Your task to perform on an android device: change text size in settings app Image 0: 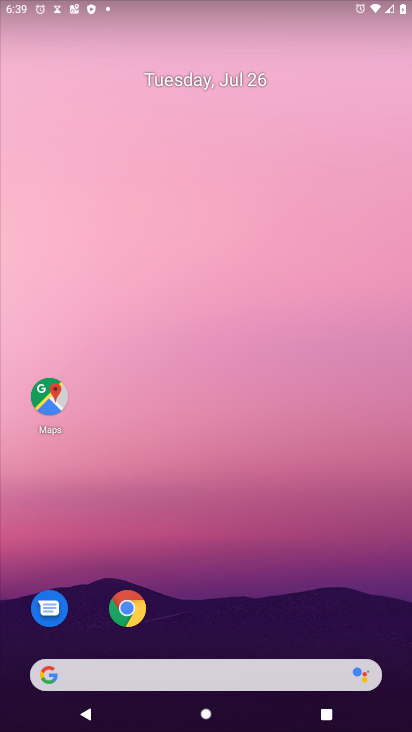
Step 0: press home button
Your task to perform on an android device: change text size in settings app Image 1: 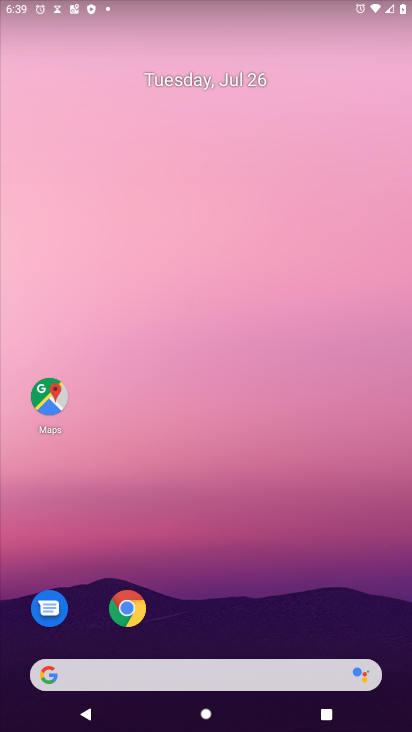
Step 1: drag from (274, 625) to (278, 171)
Your task to perform on an android device: change text size in settings app Image 2: 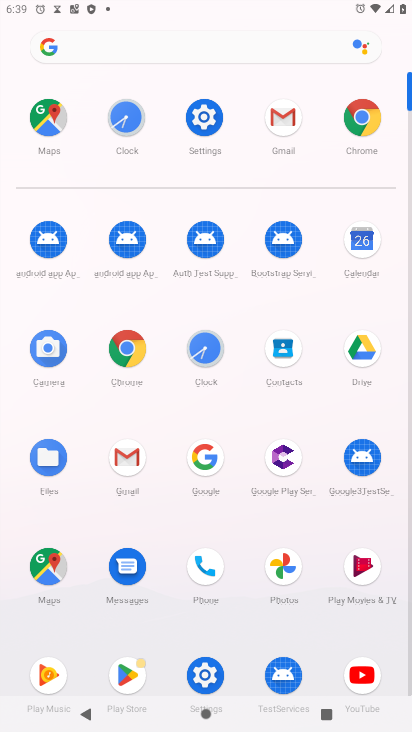
Step 2: click (211, 122)
Your task to perform on an android device: change text size in settings app Image 3: 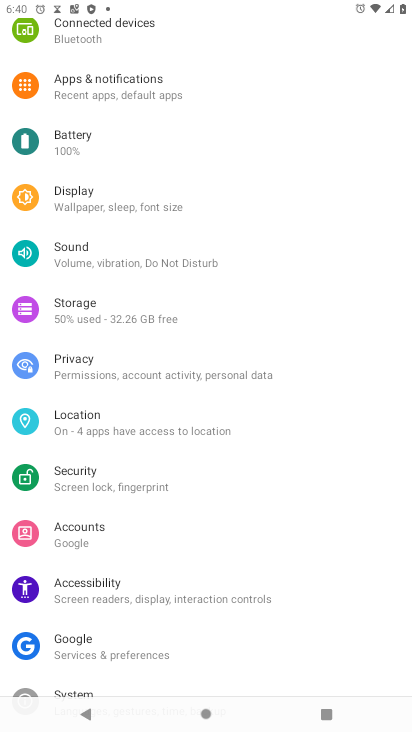
Step 3: click (122, 214)
Your task to perform on an android device: change text size in settings app Image 4: 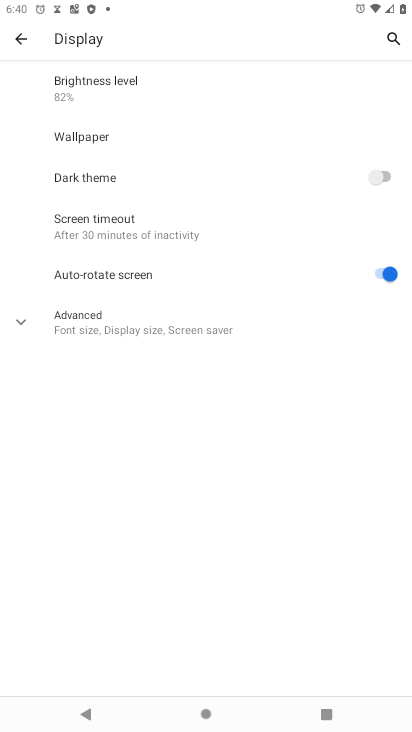
Step 4: click (102, 328)
Your task to perform on an android device: change text size in settings app Image 5: 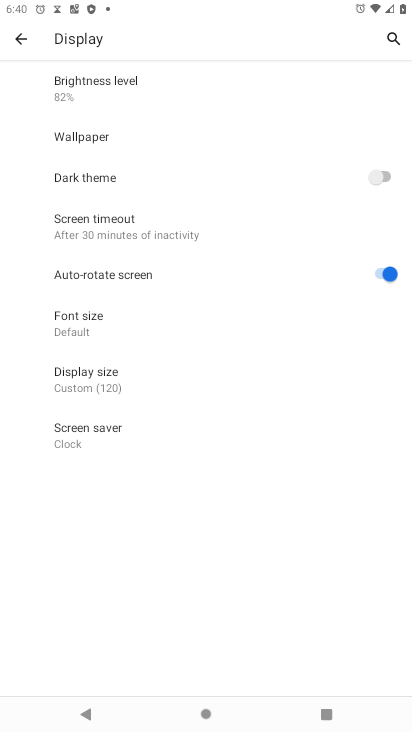
Step 5: click (71, 340)
Your task to perform on an android device: change text size in settings app Image 6: 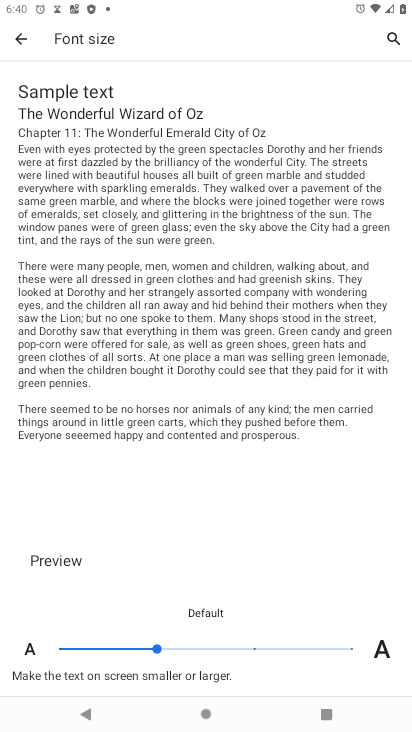
Step 6: click (253, 648)
Your task to perform on an android device: change text size in settings app Image 7: 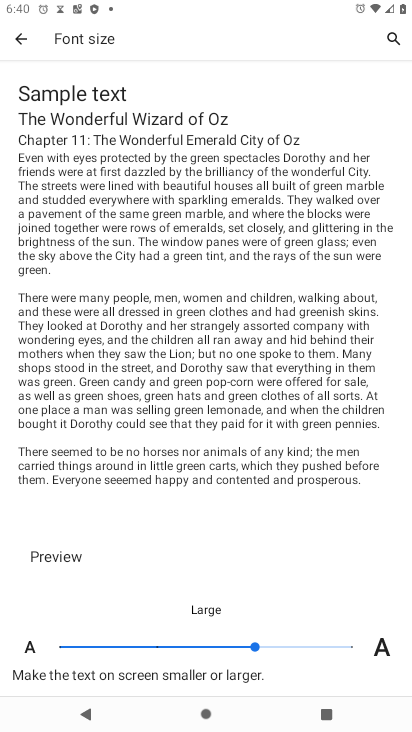
Step 7: click (360, 648)
Your task to perform on an android device: change text size in settings app Image 8: 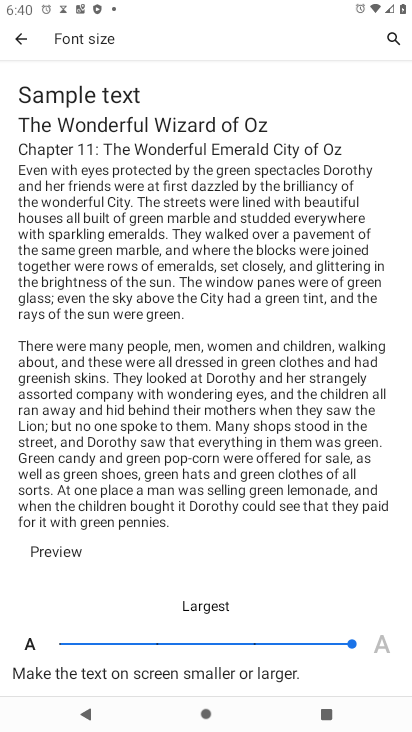
Step 8: click (272, 646)
Your task to perform on an android device: change text size in settings app Image 9: 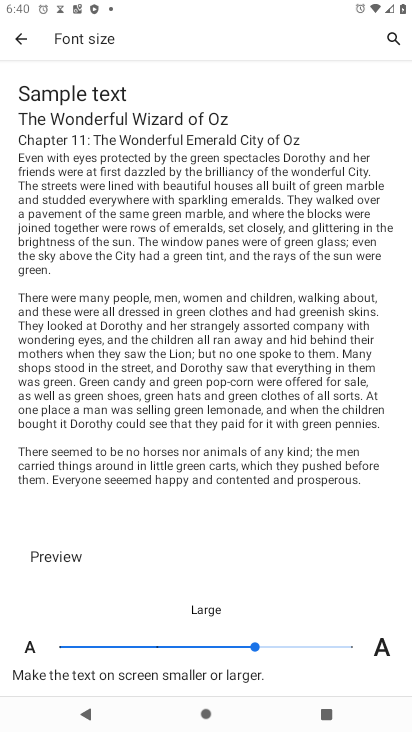
Step 9: click (351, 649)
Your task to perform on an android device: change text size in settings app Image 10: 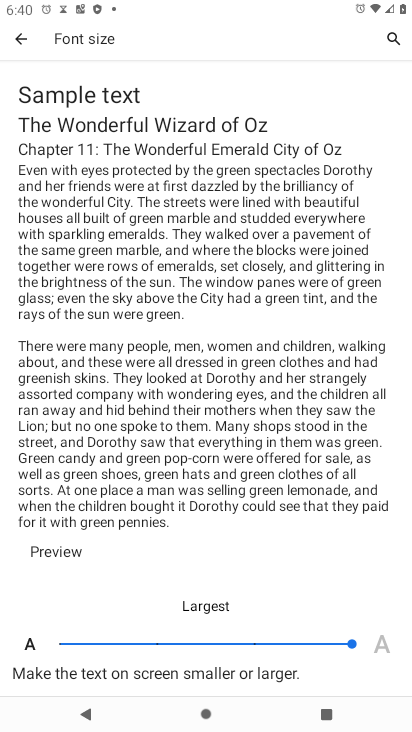
Step 10: task complete